Your task to perform on an android device: all mails in gmail Image 0: 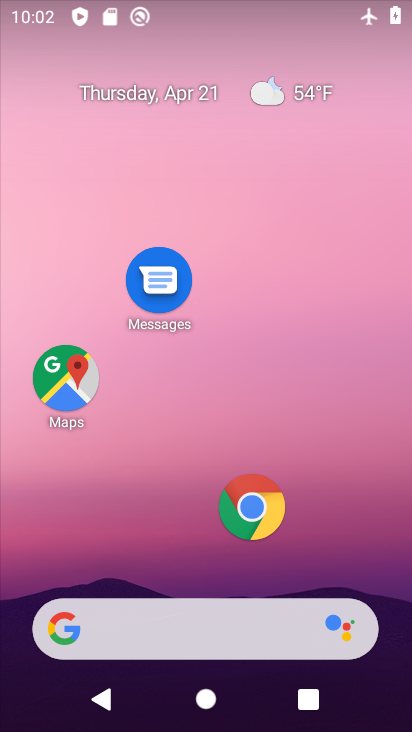
Step 0: drag from (196, 537) to (191, 59)
Your task to perform on an android device: all mails in gmail Image 1: 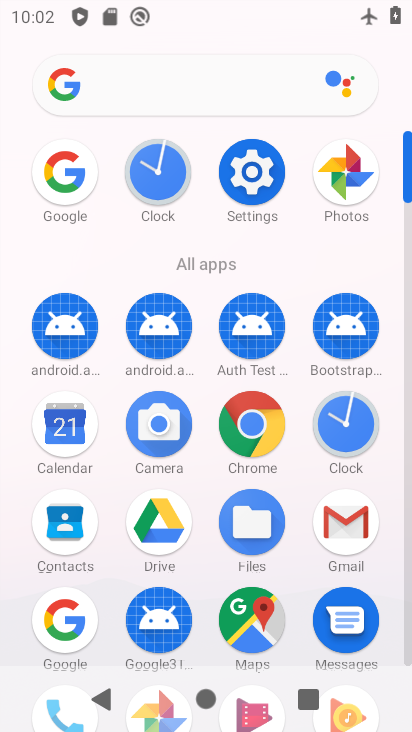
Step 1: click (350, 532)
Your task to perform on an android device: all mails in gmail Image 2: 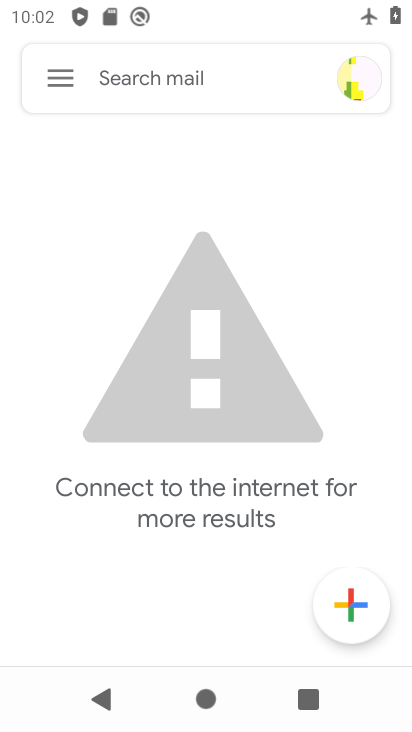
Step 2: task complete